Your task to perform on an android device: turn off priority inbox in the gmail app Image 0: 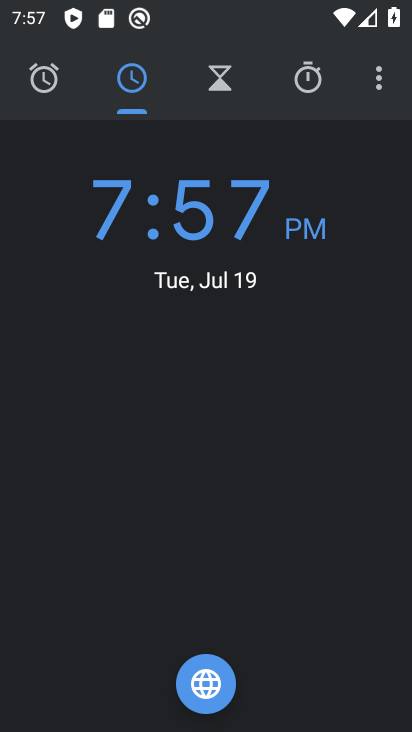
Step 0: press back button
Your task to perform on an android device: turn off priority inbox in the gmail app Image 1: 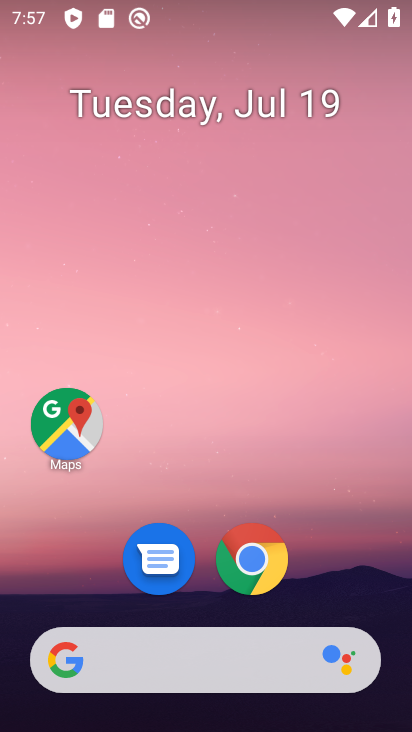
Step 1: drag from (85, 598) to (175, 8)
Your task to perform on an android device: turn off priority inbox in the gmail app Image 2: 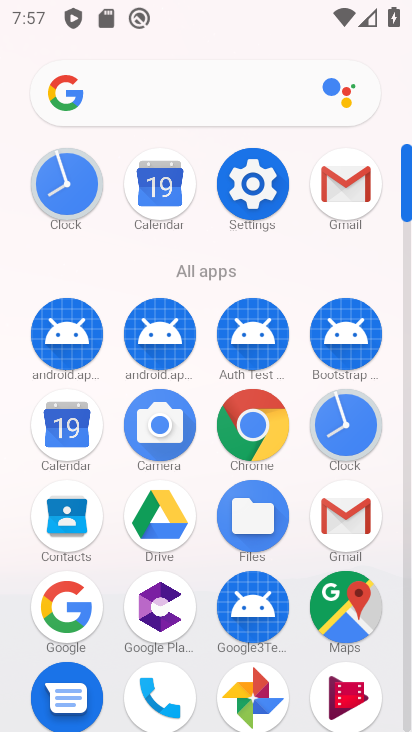
Step 2: click (335, 191)
Your task to perform on an android device: turn off priority inbox in the gmail app Image 3: 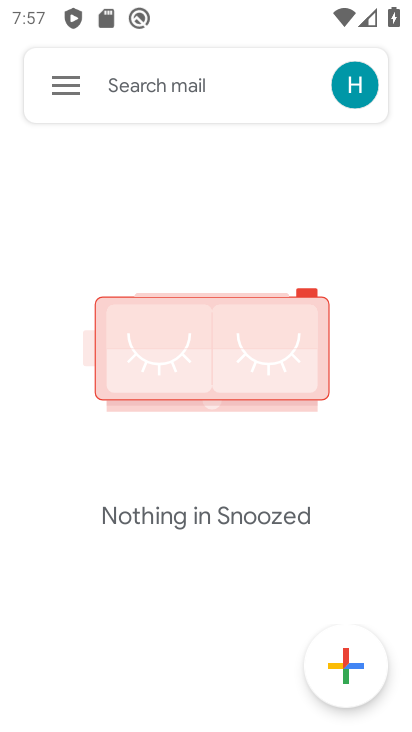
Step 3: click (65, 80)
Your task to perform on an android device: turn off priority inbox in the gmail app Image 4: 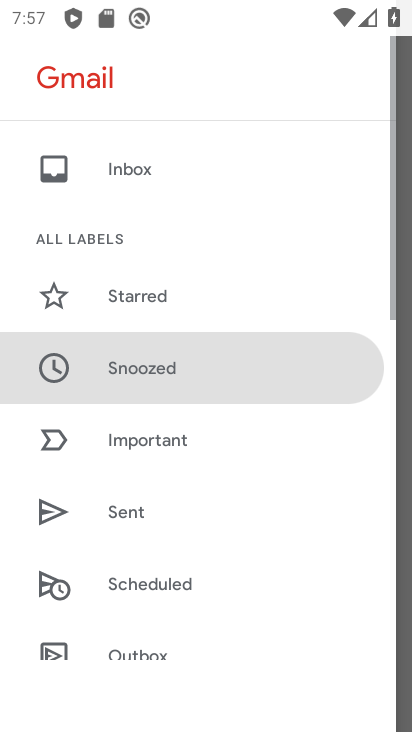
Step 4: drag from (152, 634) to (292, 52)
Your task to perform on an android device: turn off priority inbox in the gmail app Image 5: 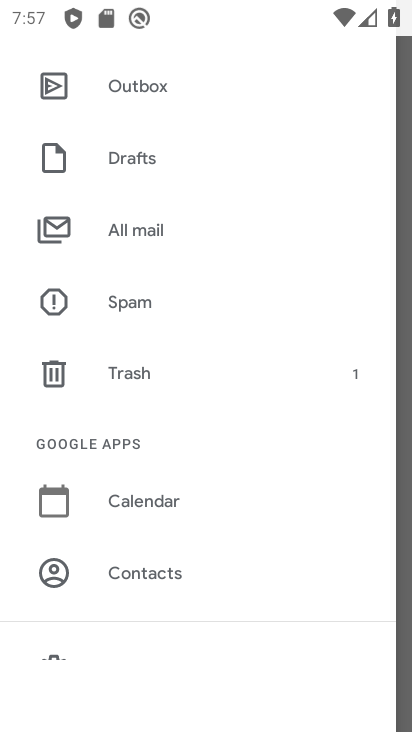
Step 5: drag from (139, 609) to (241, 119)
Your task to perform on an android device: turn off priority inbox in the gmail app Image 6: 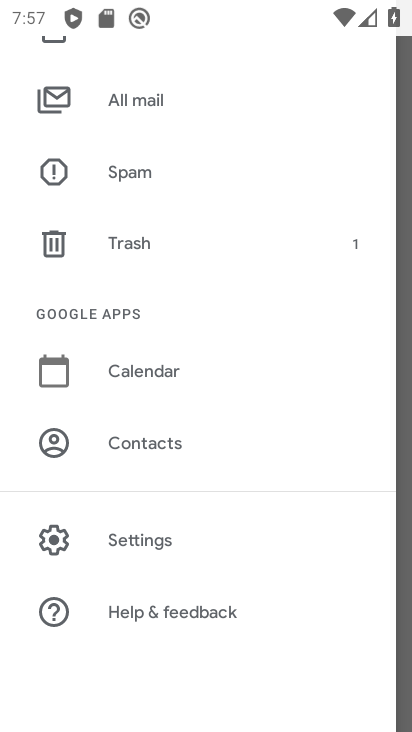
Step 6: click (134, 542)
Your task to perform on an android device: turn off priority inbox in the gmail app Image 7: 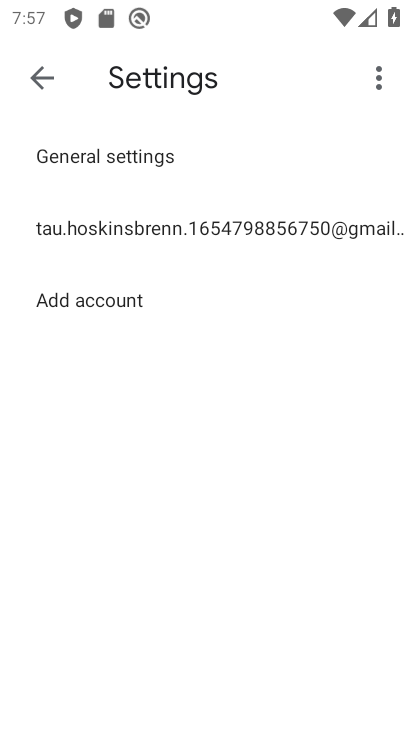
Step 7: click (179, 228)
Your task to perform on an android device: turn off priority inbox in the gmail app Image 8: 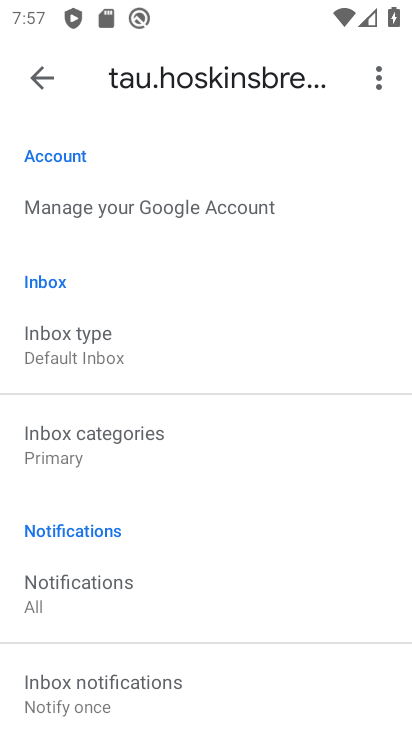
Step 8: click (110, 341)
Your task to perform on an android device: turn off priority inbox in the gmail app Image 9: 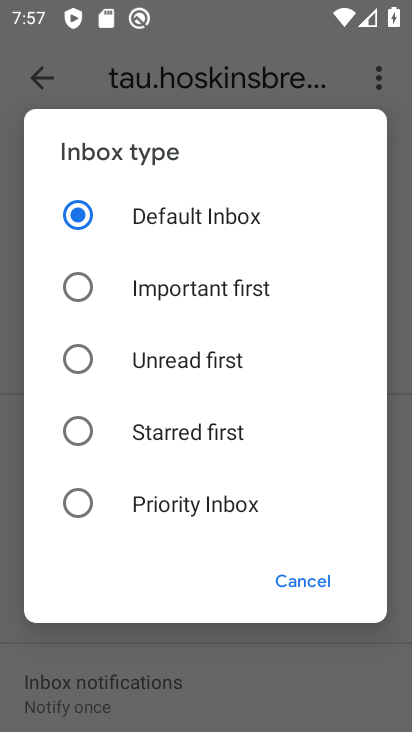
Step 9: task complete